Your task to perform on an android device: Is it going to rain today? Image 0: 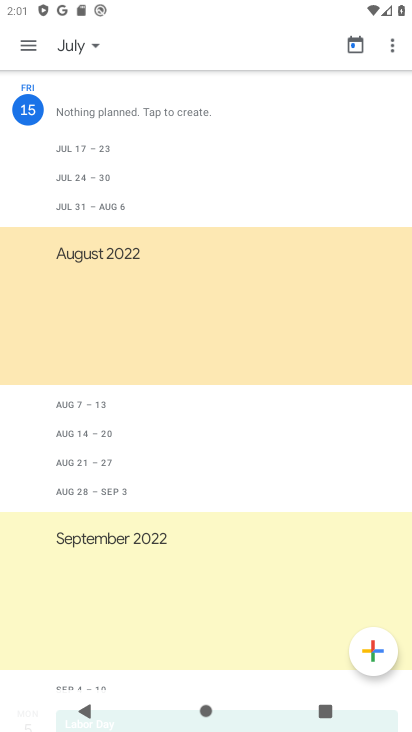
Step 0: press home button
Your task to perform on an android device: Is it going to rain today? Image 1: 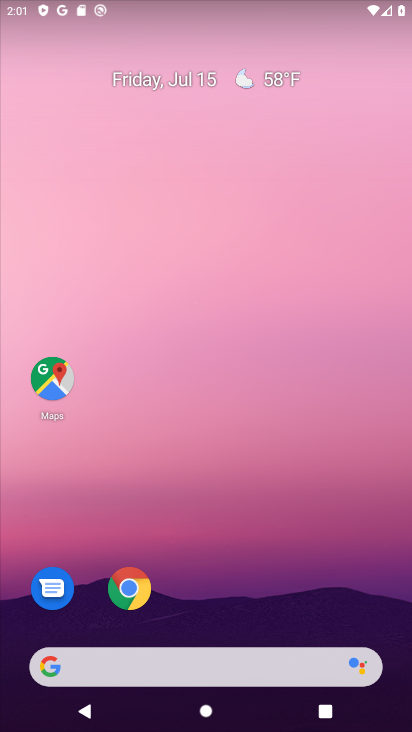
Step 1: click (215, 660)
Your task to perform on an android device: Is it going to rain today? Image 2: 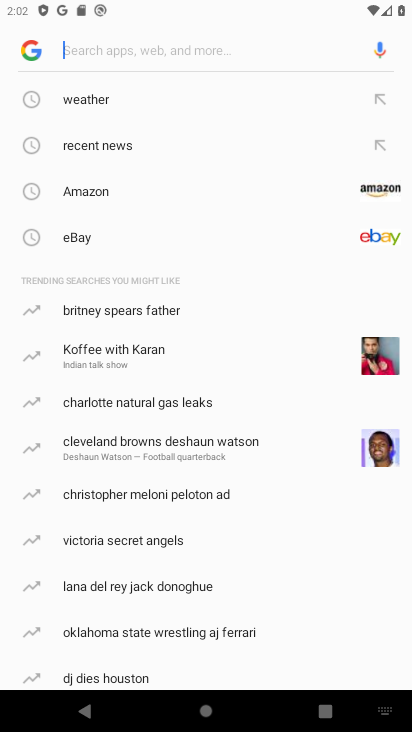
Step 2: click (126, 96)
Your task to perform on an android device: Is it going to rain today? Image 3: 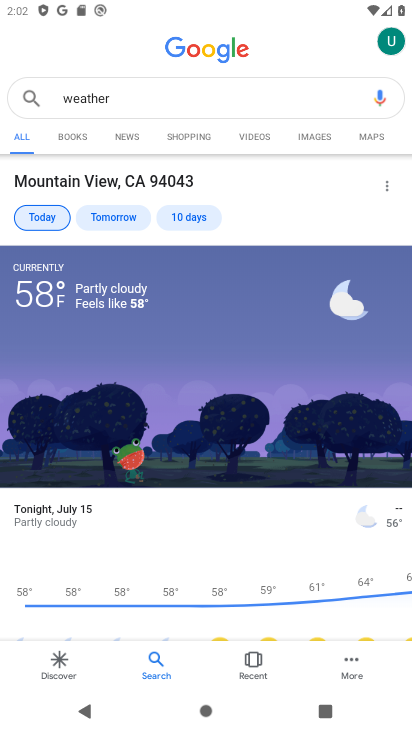
Step 3: task complete